Your task to perform on an android device: delete location history Image 0: 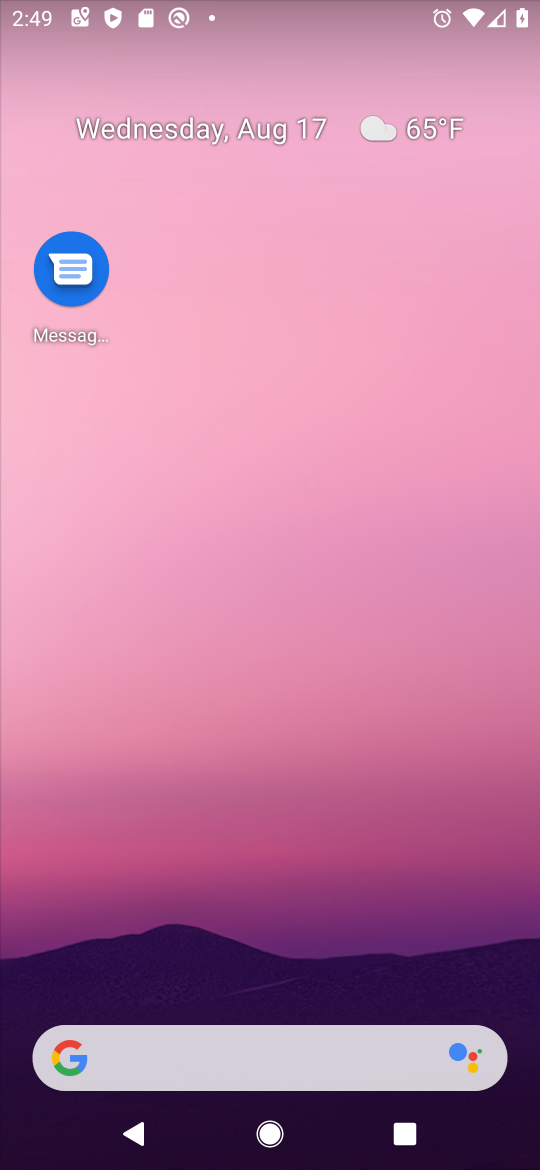
Step 0: drag from (238, 1000) to (166, 18)
Your task to perform on an android device: delete location history Image 1: 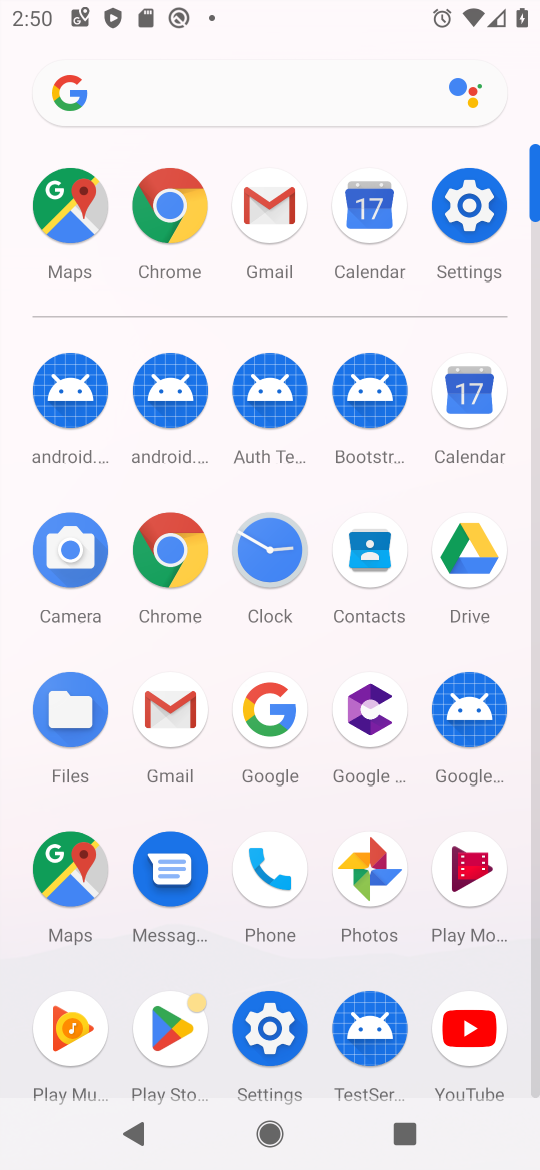
Step 1: click (45, 860)
Your task to perform on an android device: delete location history Image 2: 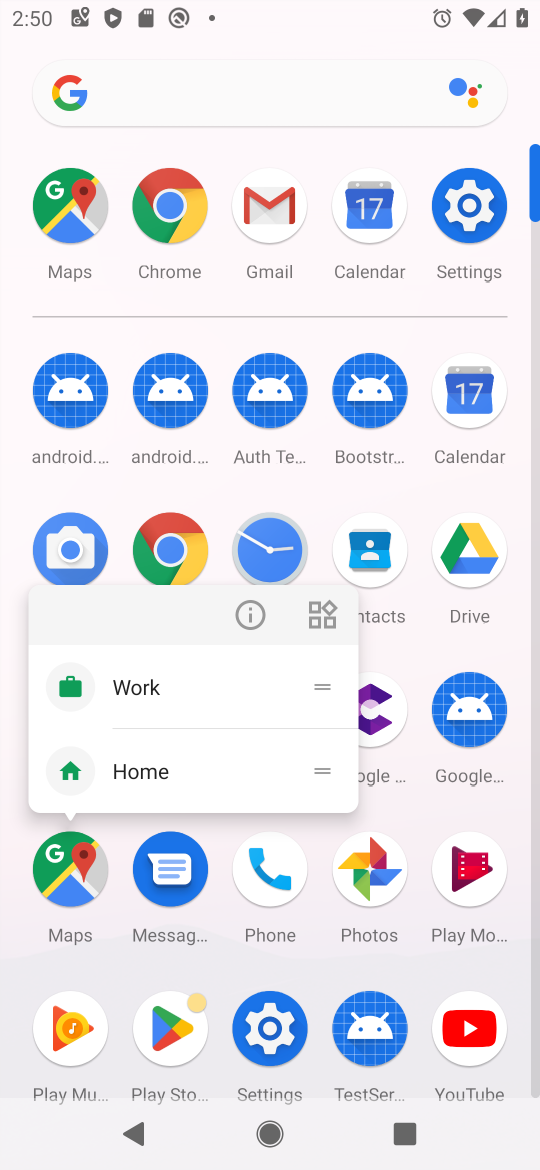
Step 2: click (84, 882)
Your task to perform on an android device: delete location history Image 3: 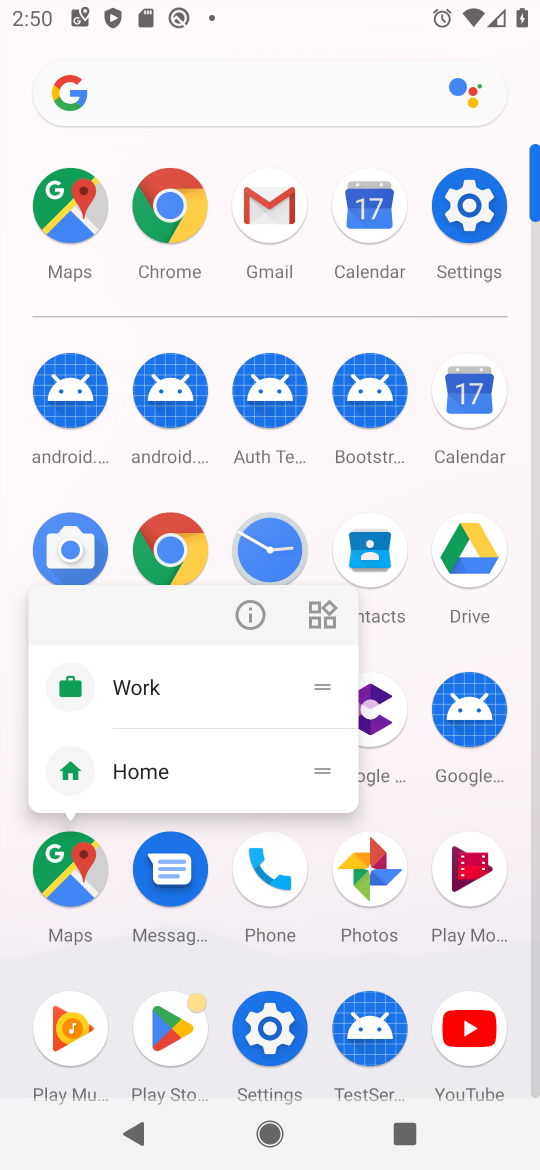
Step 3: click (84, 882)
Your task to perform on an android device: delete location history Image 4: 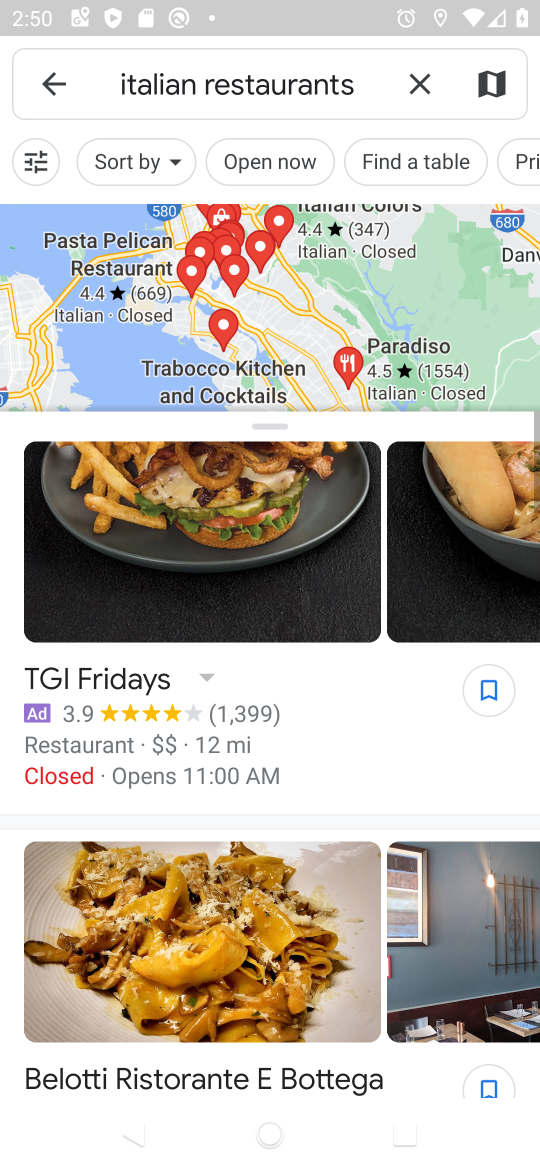
Step 4: click (36, 95)
Your task to perform on an android device: delete location history Image 5: 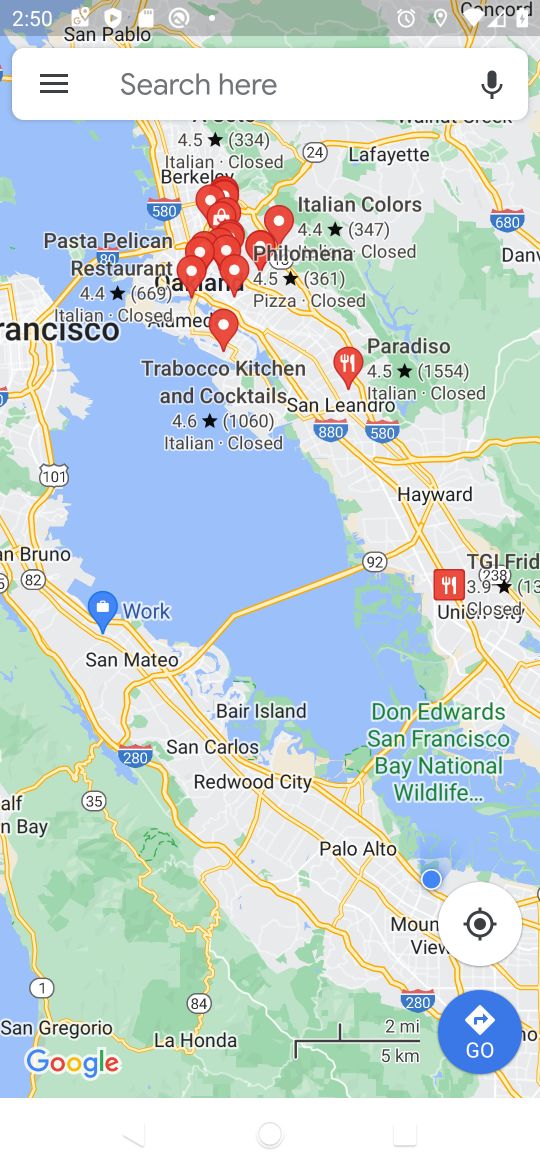
Step 5: click (36, 95)
Your task to perform on an android device: delete location history Image 6: 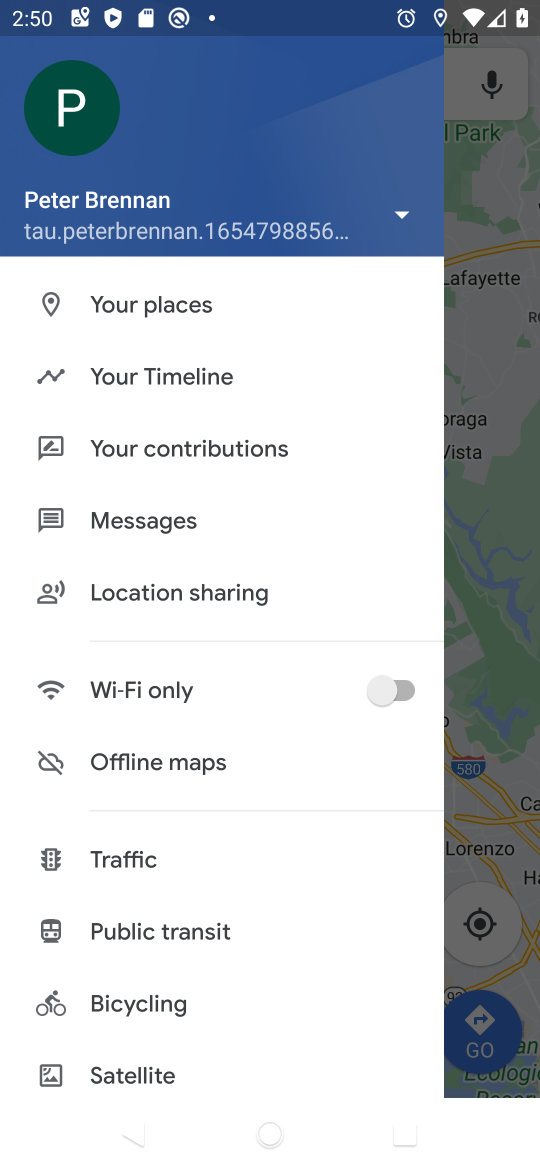
Step 6: click (148, 382)
Your task to perform on an android device: delete location history Image 7: 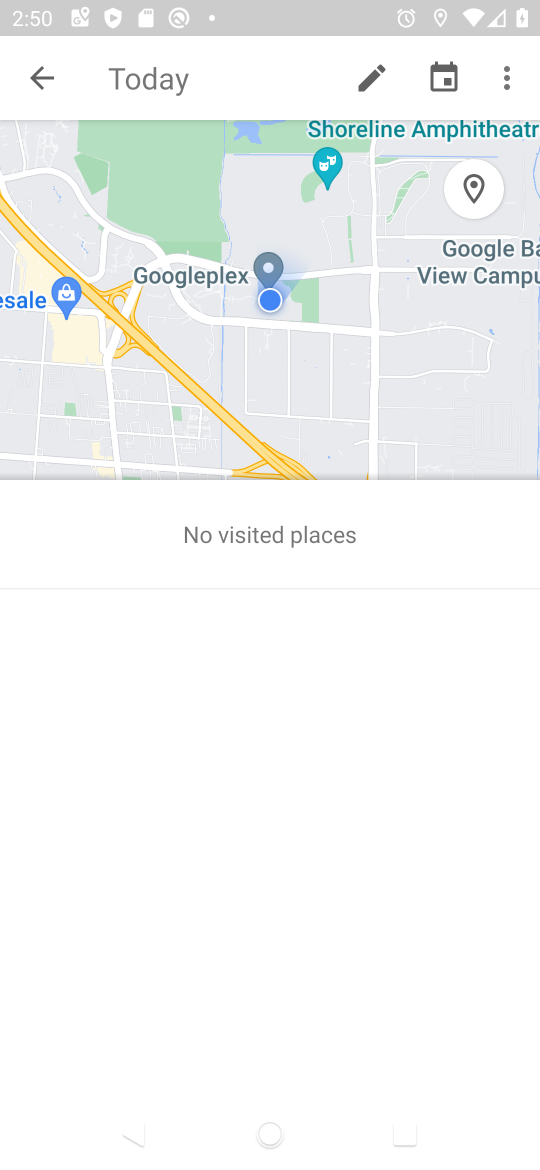
Step 7: click (487, 80)
Your task to perform on an android device: delete location history Image 8: 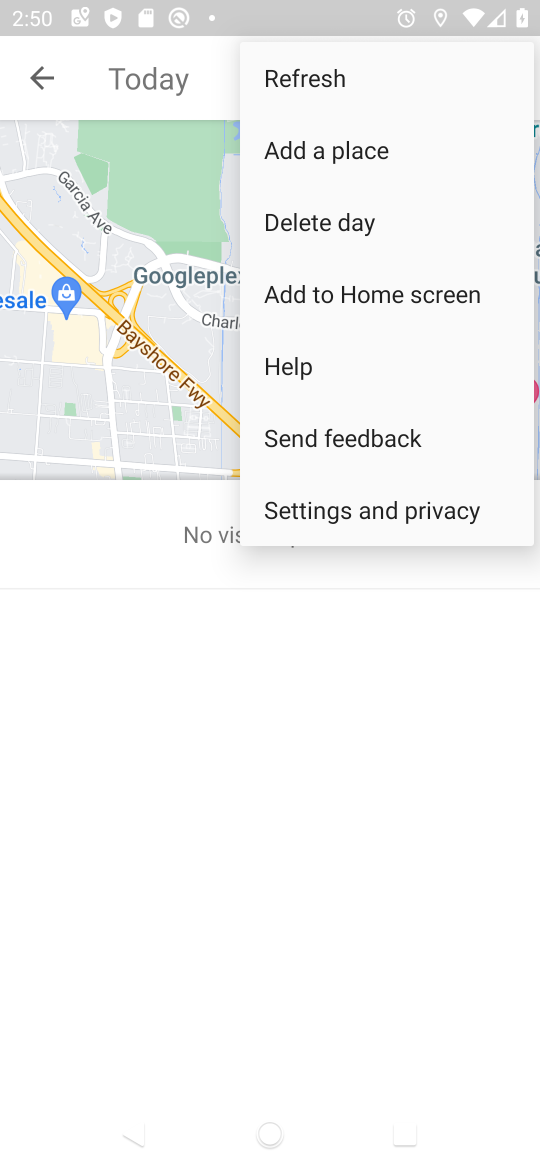
Step 8: drag from (500, 80) to (361, 510)
Your task to perform on an android device: delete location history Image 9: 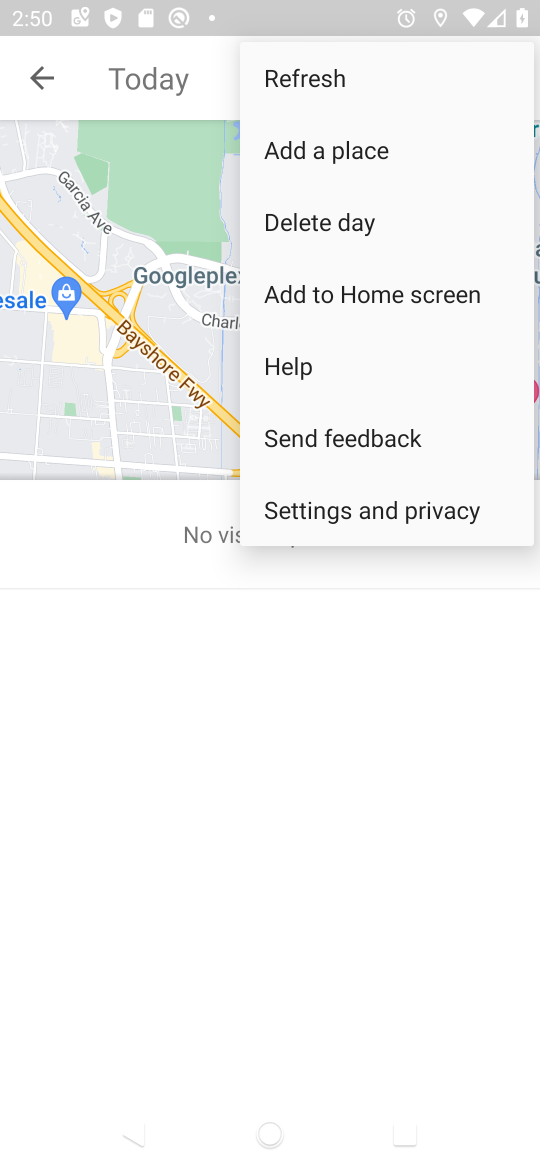
Step 9: click (362, 509)
Your task to perform on an android device: delete location history Image 10: 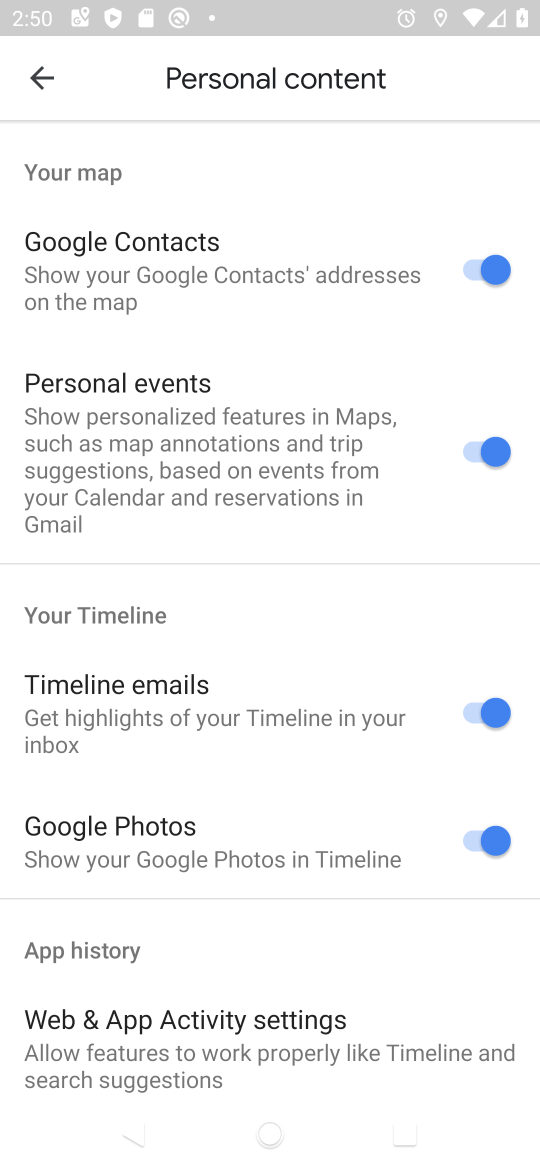
Step 10: task complete